Your task to perform on an android device: Open calendar and show me the fourth week of next month Image 0: 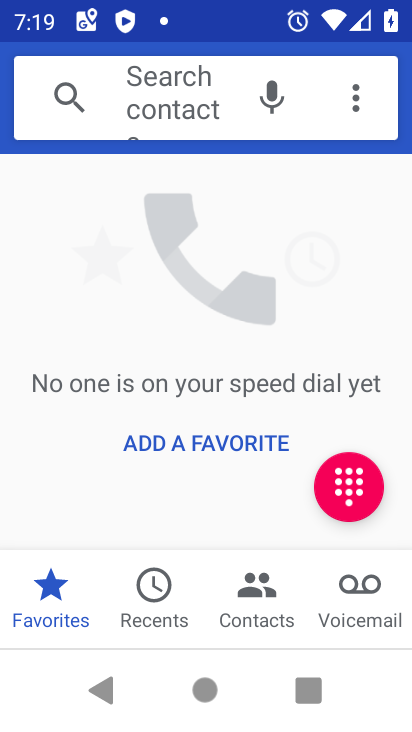
Step 0: press home button
Your task to perform on an android device: Open calendar and show me the fourth week of next month Image 1: 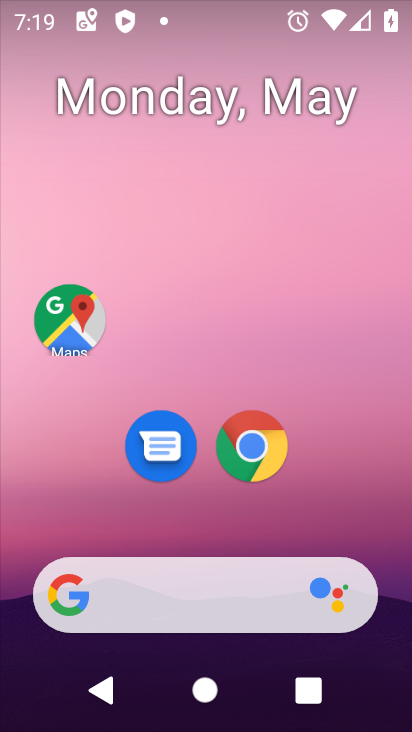
Step 1: drag from (319, 501) to (174, 13)
Your task to perform on an android device: Open calendar and show me the fourth week of next month Image 2: 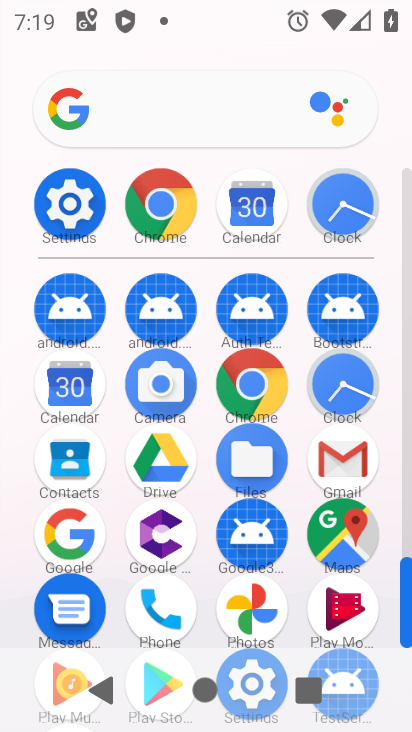
Step 2: click (69, 388)
Your task to perform on an android device: Open calendar and show me the fourth week of next month Image 3: 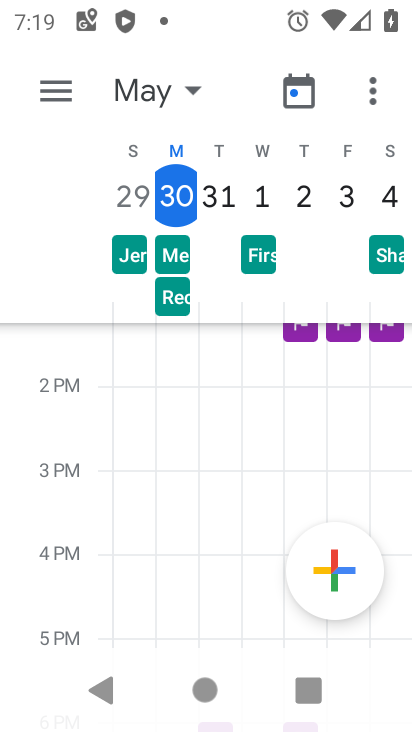
Step 3: click (187, 83)
Your task to perform on an android device: Open calendar and show me the fourth week of next month Image 4: 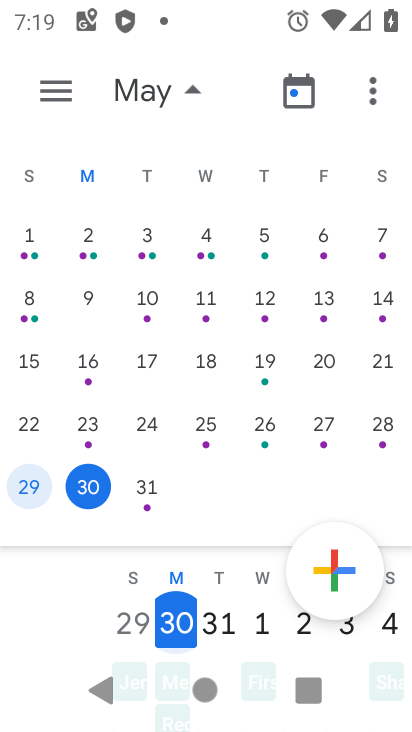
Step 4: drag from (369, 327) to (93, 224)
Your task to perform on an android device: Open calendar and show me the fourth week of next month Image 5: 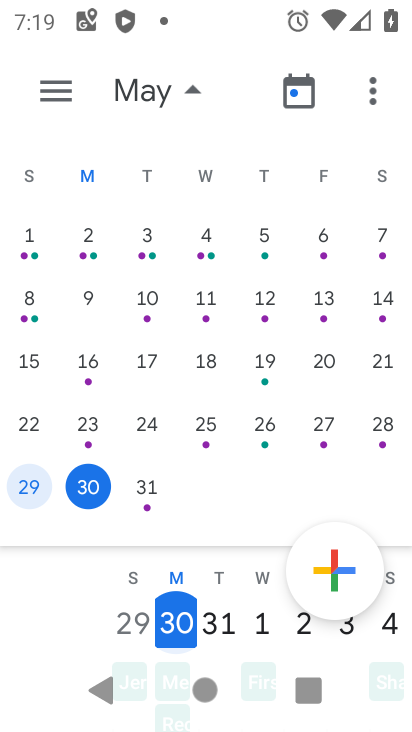
Step 5: drag from (351, 413) to (40, 342)
Your task to perform on an android device: Open calendar and show me the fourth week of next month Image 6: 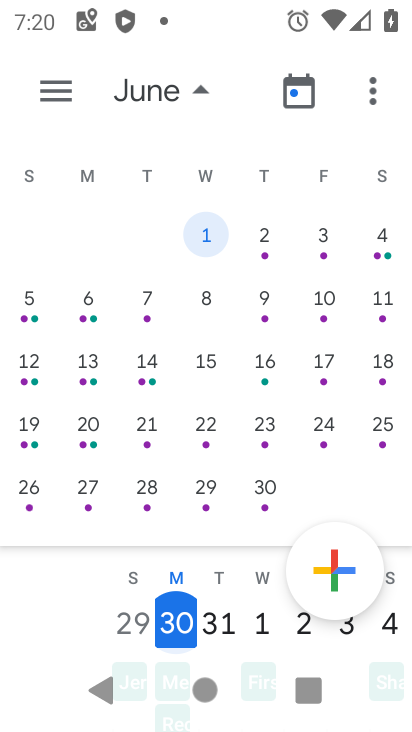
Step 6: click (213, 426)
Your task to perform on an android device: Open calendar and show me the fourth week of next month Image 7: 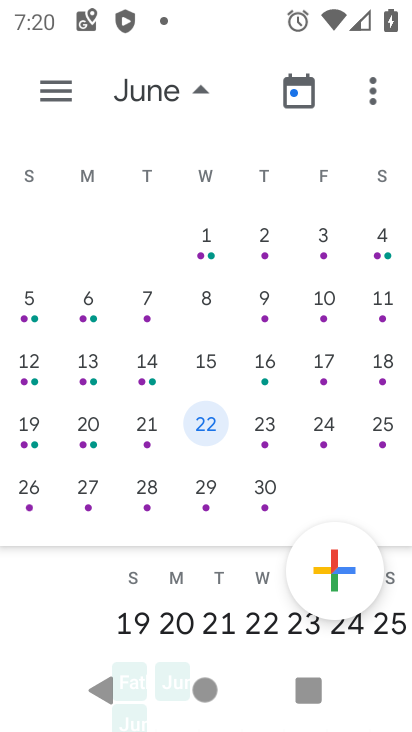
Step 7: task complete